Your task to perform on an android device: Toggle the flashlight Image 0: 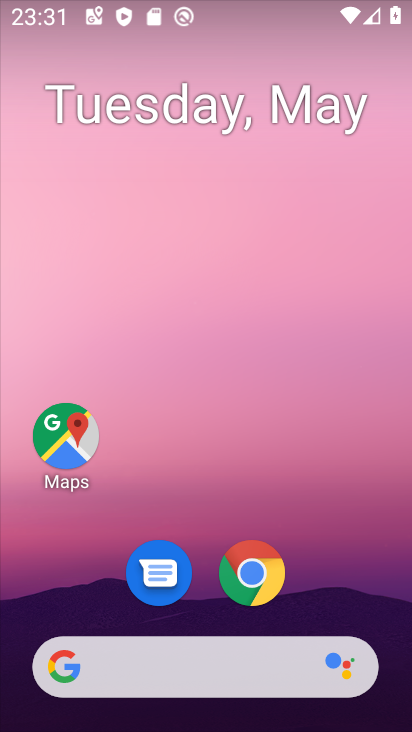
Step 0: drag from (312, 569) to (328, 281)
Your task to perform on an android device: Toggle the flashlight Image 1: 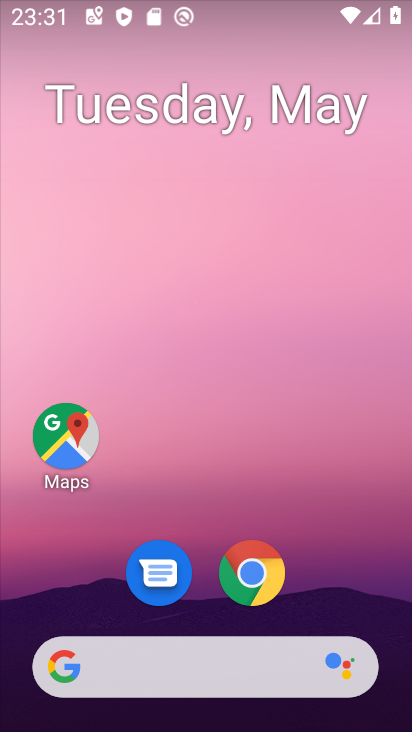
Step 1: drag from (332, 559) to (334, 335)
Your task to perform on an android device: Toggle the flashlight Image 2: 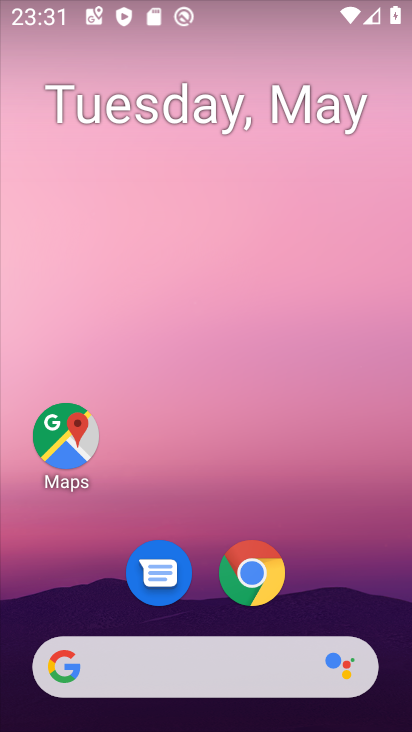
Step 2: drag from (313, 654) to (345, 332)
Your task to perform on an android device: Toggle the flashlight Image 3: 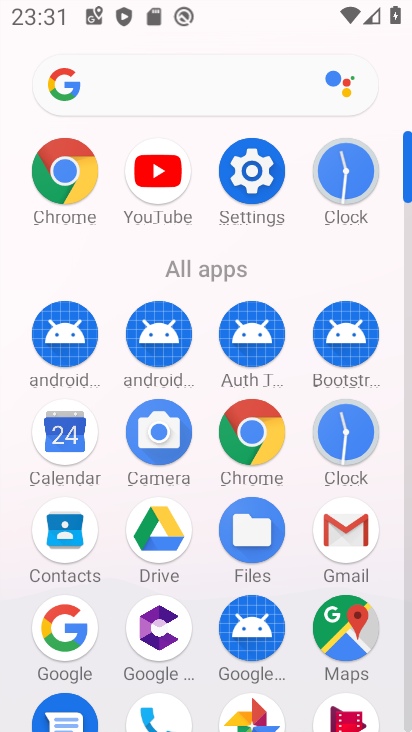
Step 3: click (245, 167)
Your task to perform on an android device: Toggle the flashlight Image 4: 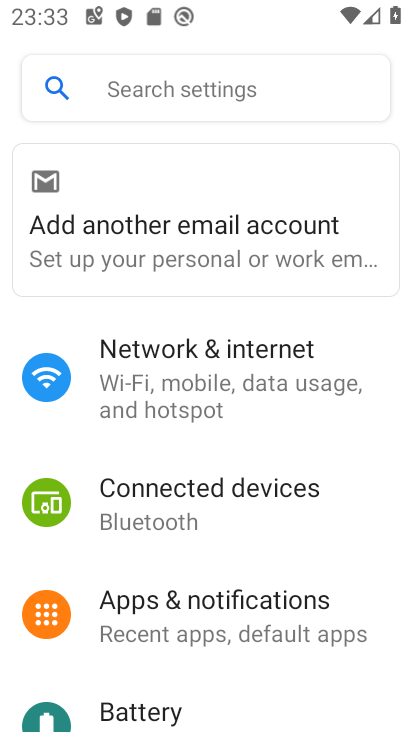
Step 4: task complete